Your task to perform on an android device: Toggle the flashlight Image 0: 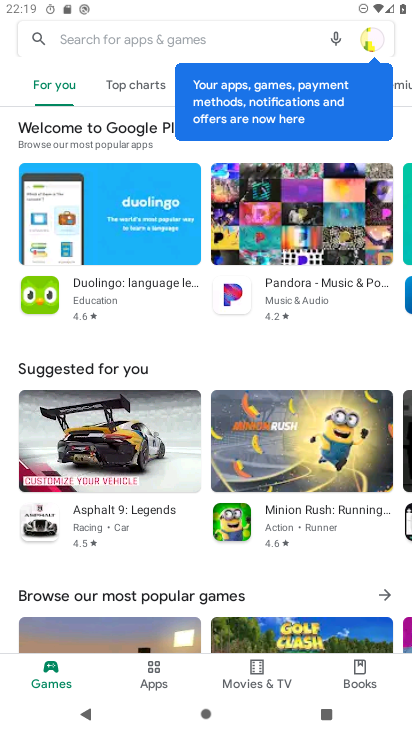
Step 0: press home button
Your task to perform on an android device: Toggle the flashlight Image 1: 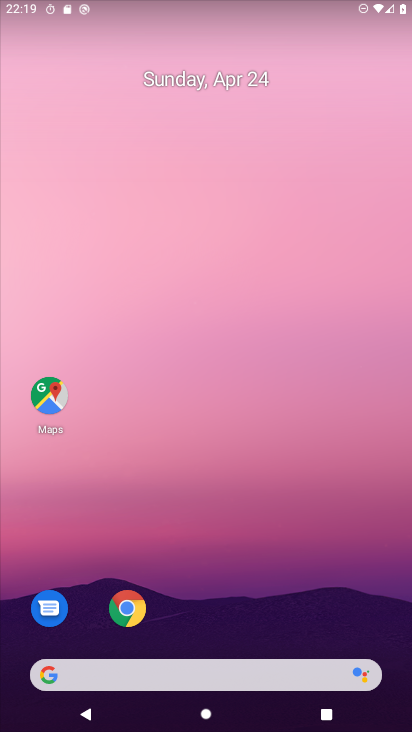
Step 1: drag from (250, 588) to (317, 40)
Your task to perform on an android device: Toggle the flashlight Image 2: 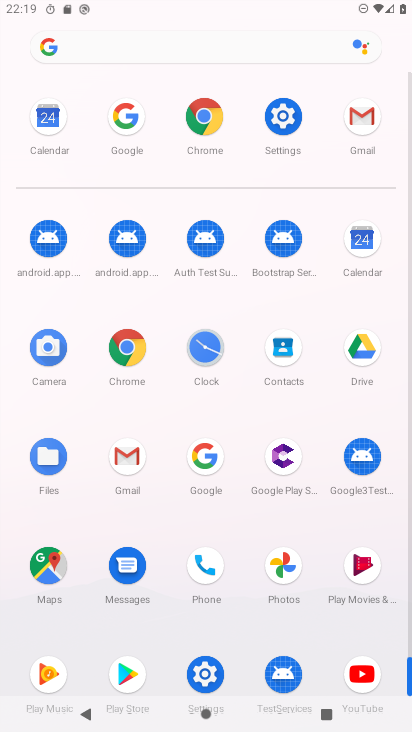
Step 2: click (287, 114)
Your task to perform on an android device: Toggle the flashlight Image 3: 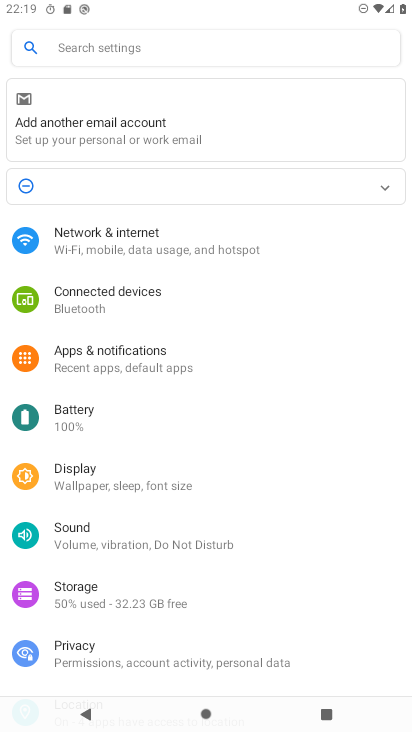
Step 3: click (205, 44)
Your task to perform on an android device: Toggle the flashlight Image 4: 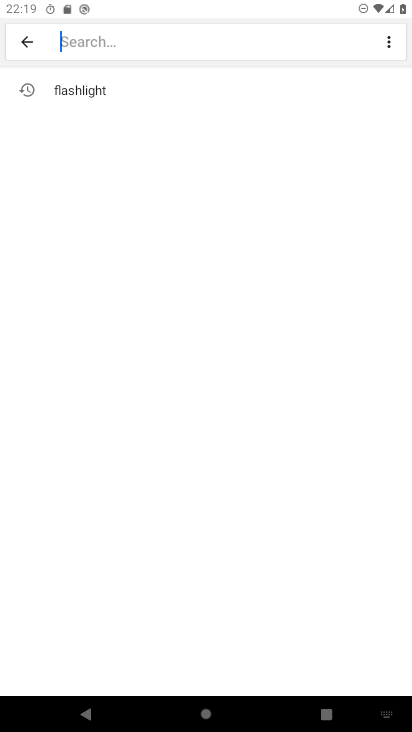
Step 4: click (100, 87)
Your task to perform on an android device: Toggle the flashlight Image 5: 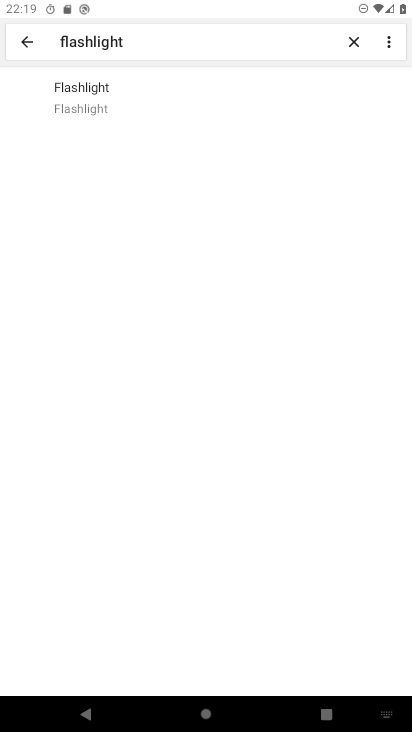
Step 5: click (100, 87)
Your task to perform on an android device: Toggle the flashlight Image 6: 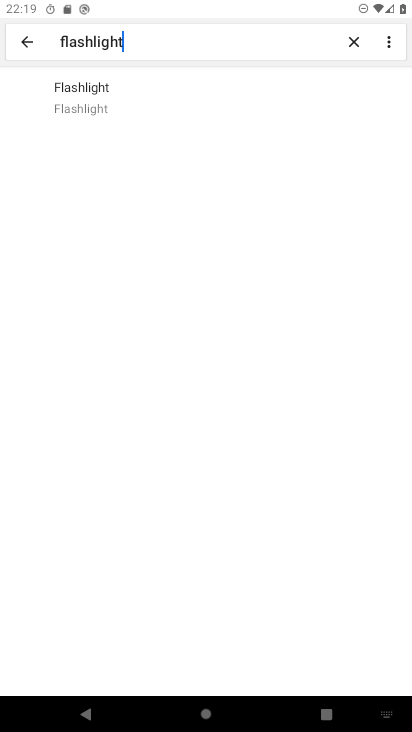
Step 6: task complete